Your task to perform on an android device: Go to Google Image 0: 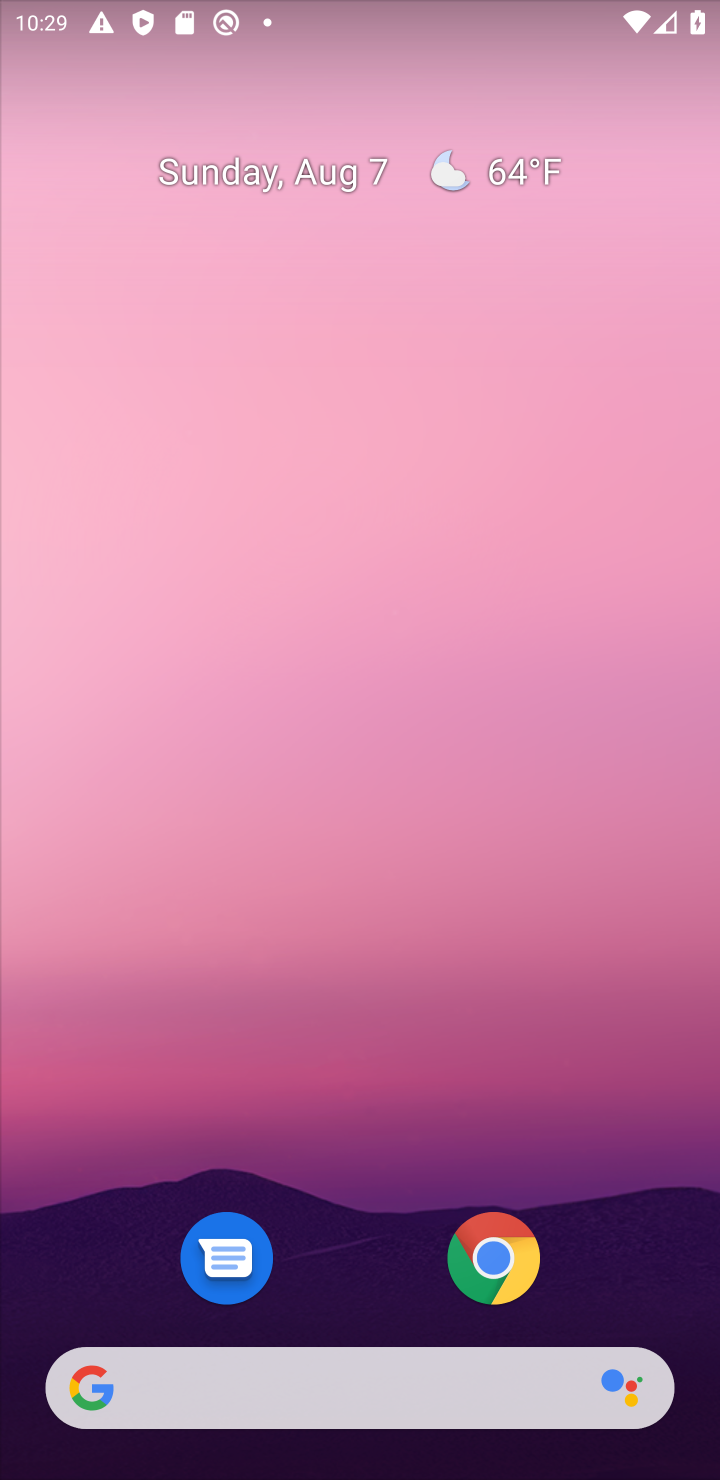
Step 0: press home button
Your task to perform on an android device: Go to Google Image 1: 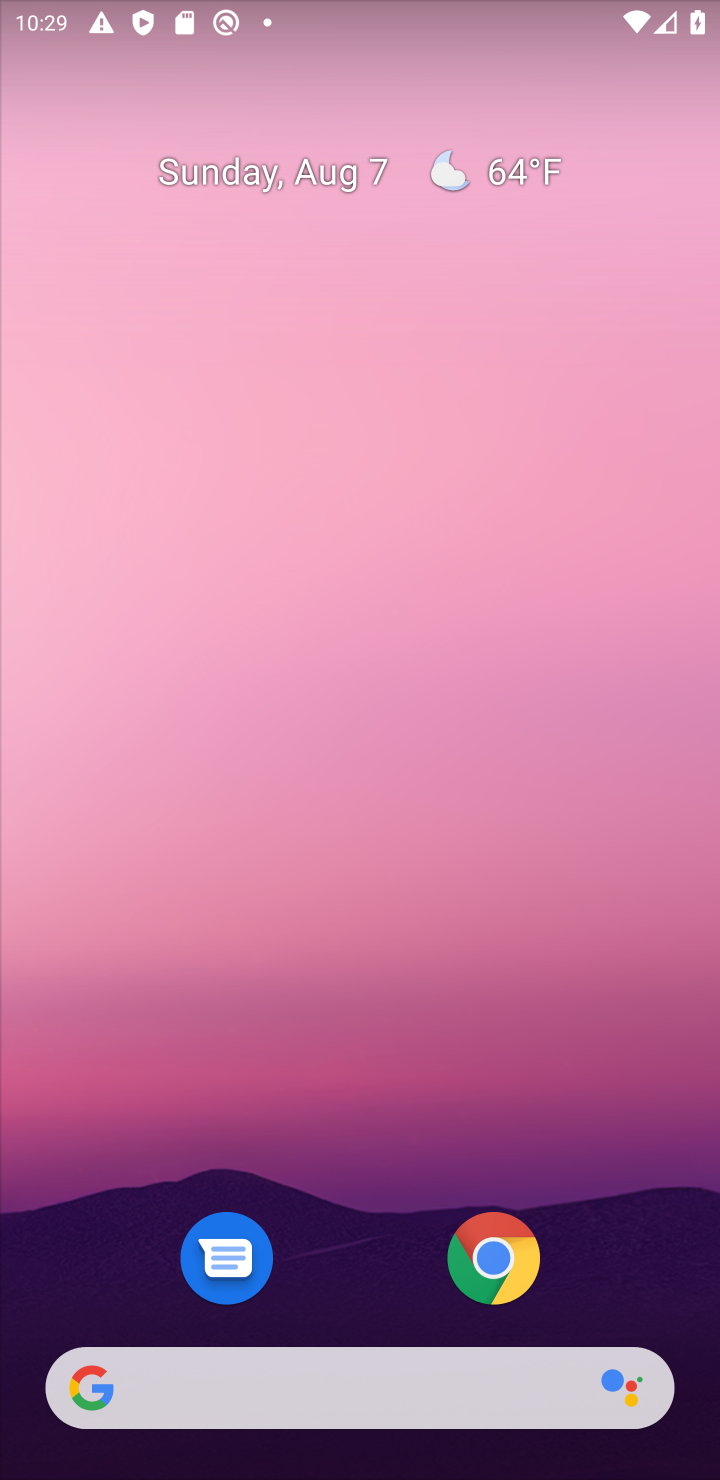
Step 1: drag from (402, 1296) to (401, 231)
Your task to perform on an android device: Go to Google Image 2: 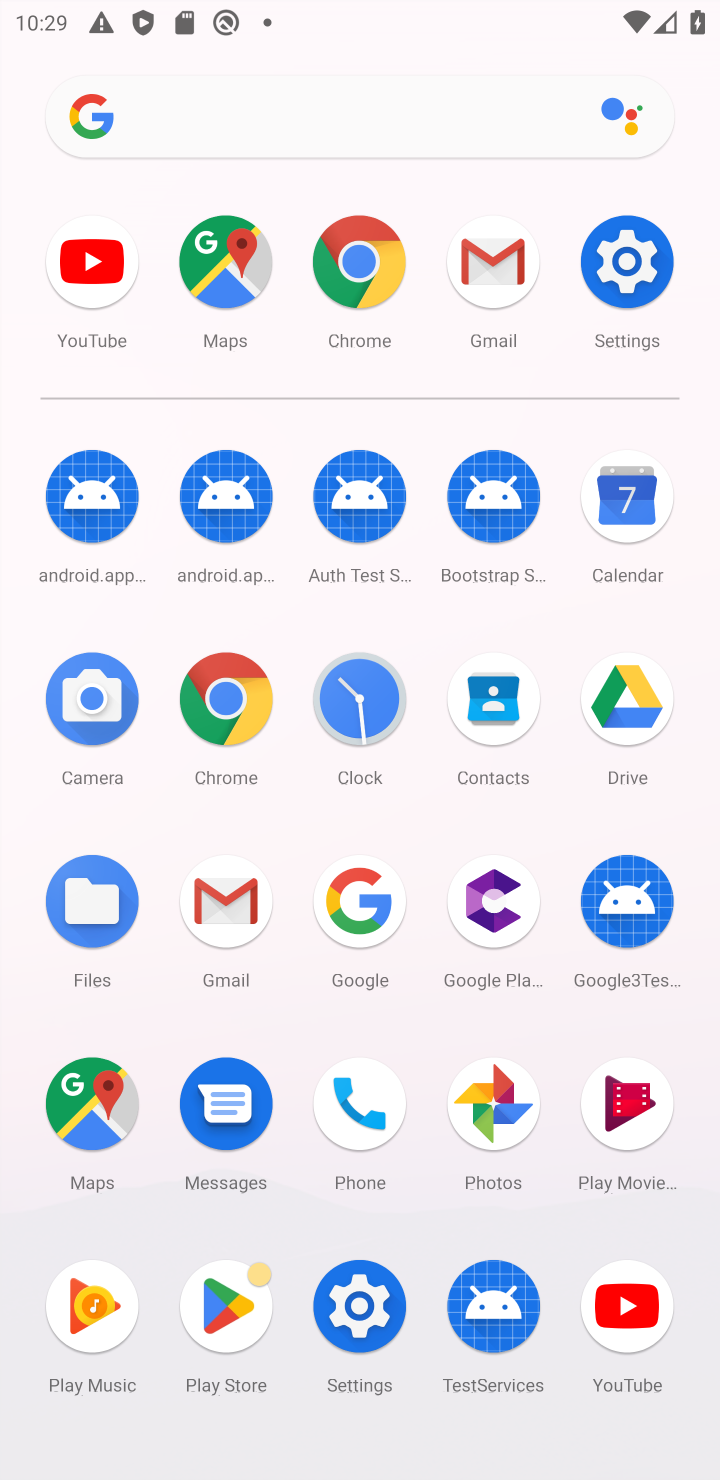
Step 2: click (380, 926)
Your task to perform on an android device: Go to Google Image 3: 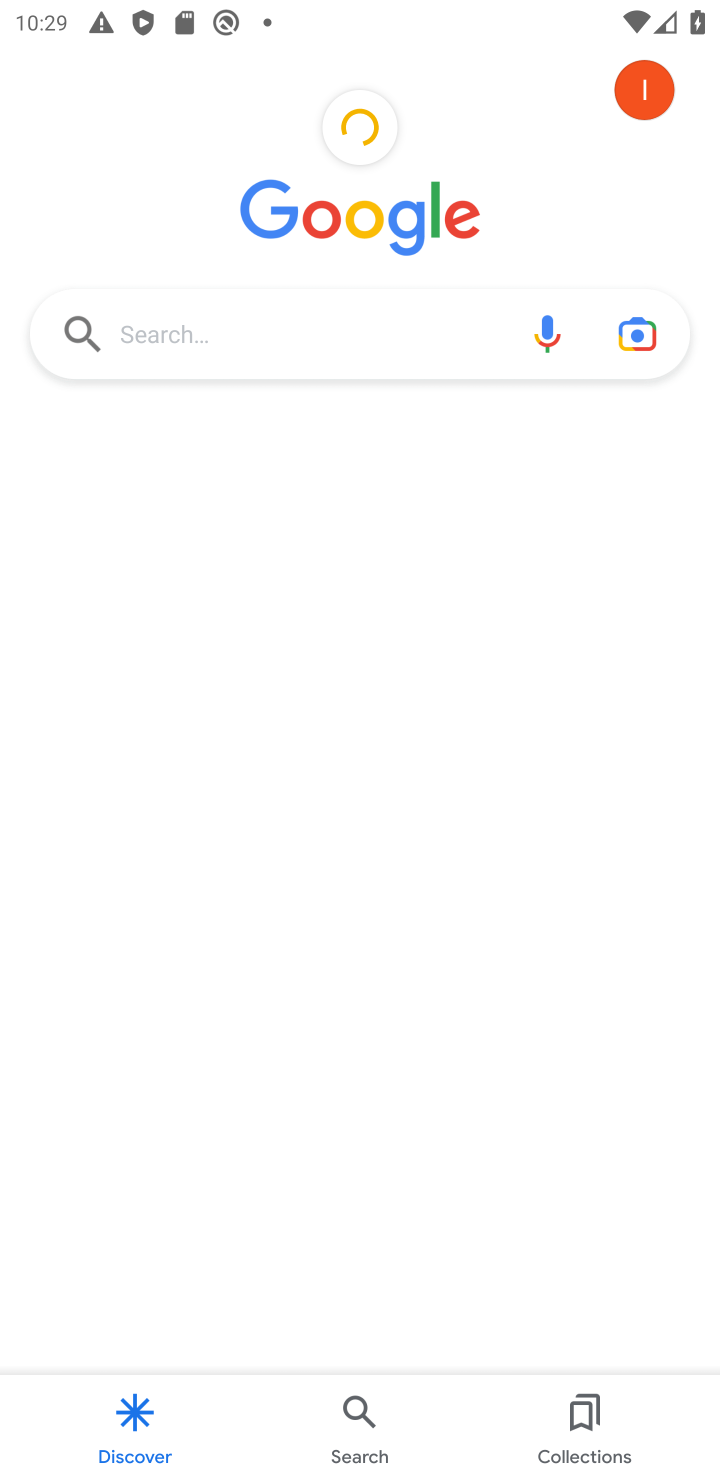
Step 3: task complete